Your task to perform on an android device: Open Android settings Image 0: 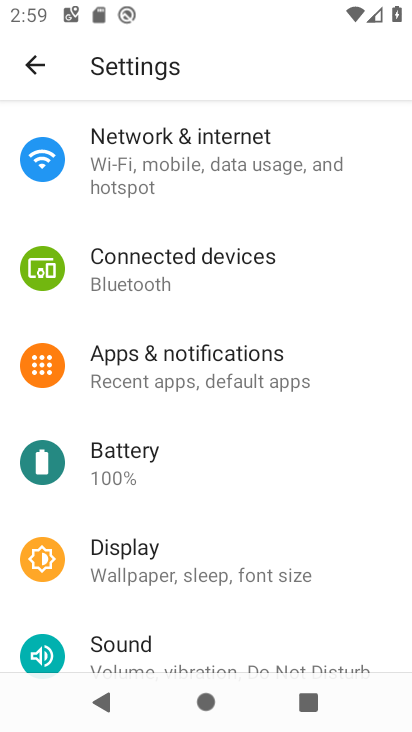
Step 0: task complete